Your task to perform on an android device: toggle data saver in the chrome app Image 0: 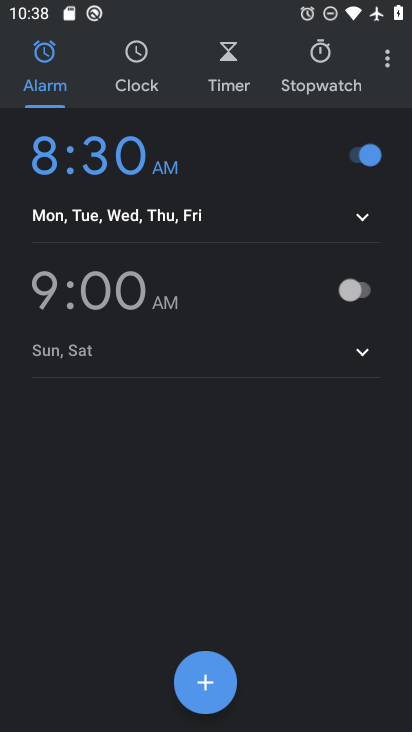
Step 0: press home button
Your task to perform on an android device: toggle data saver in the chrome app Image 1: 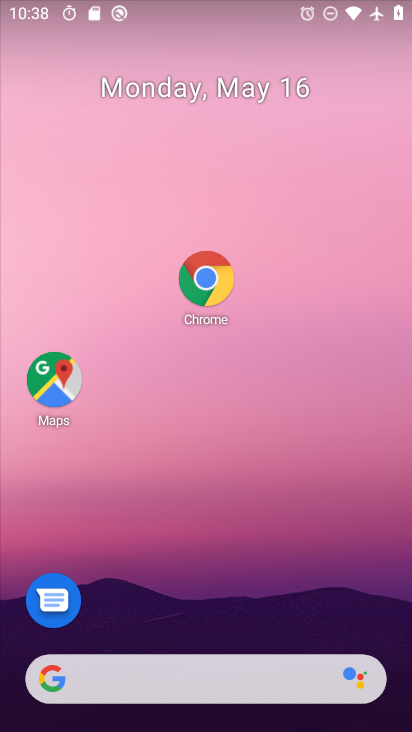
Step 1: click (221, 284)
Your task to perform on an android device: toggle data saver in the chrome app Image 2: 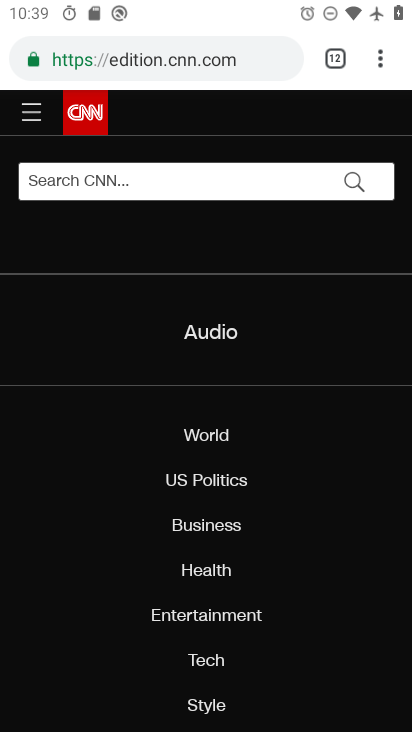
Step 2: drag from (373, 66) to (195, 646)
Your task to perform on an android device: toggle data saver in the chrome app Image 3: 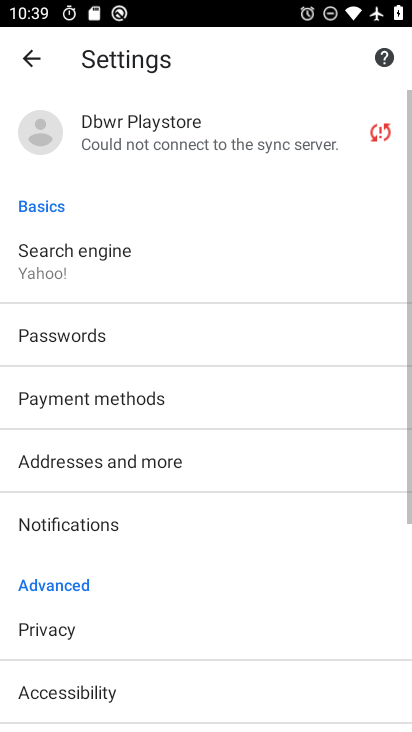
Step 3: drag from (173, 662) to (338, 172)
Your task to perform on an android device: toggle data saver in the chrome app Image 4: 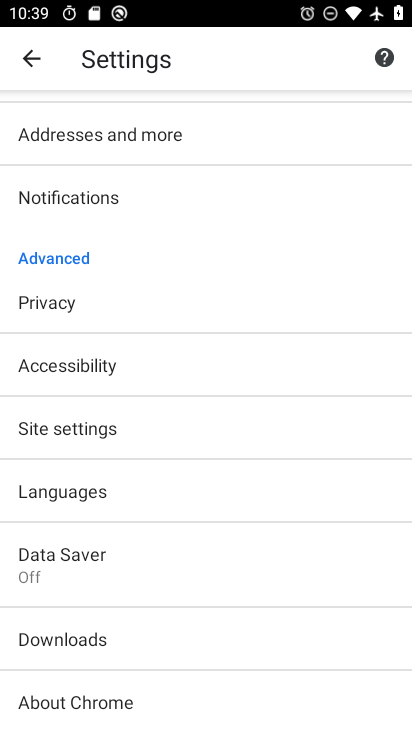
Step 4: click (82, 570)
Your task to perform on an android device: toggle data saver in the chrome app Image 5: 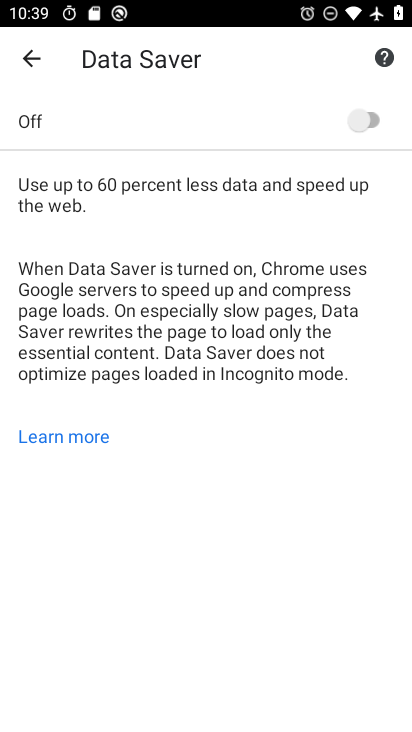
Step 5: click (375, 118)
Your task to perform on an android device: toggle data saver in the chrome app Image 6: 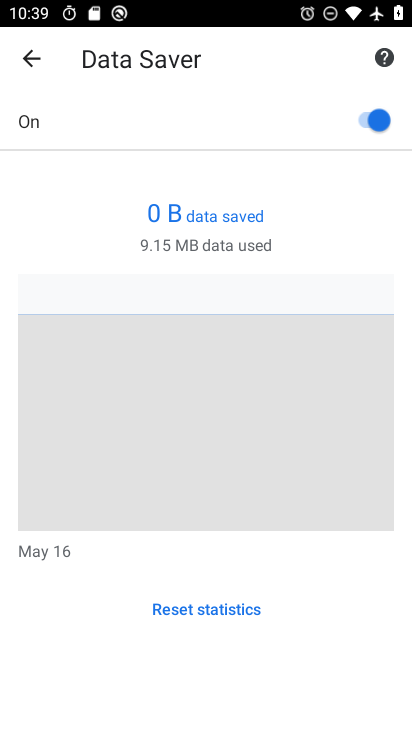
Step 6: task complete